Your task to perform on an android device: turn smart compose on in the gmail app Image 0: 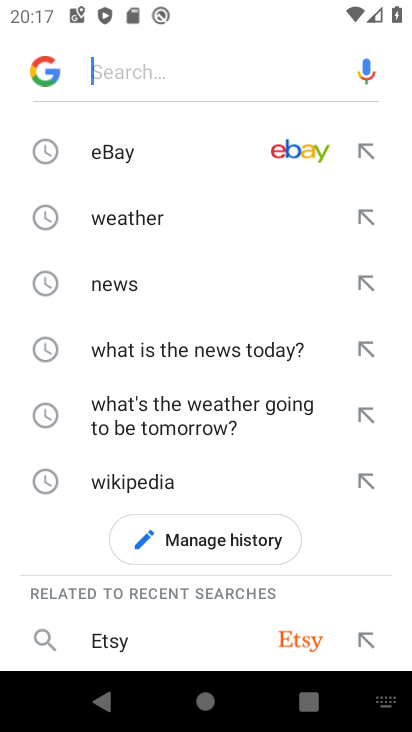
Step 0: press home button
Your task to perform on an android device: turn smart compose on in the gmail app Image 1: 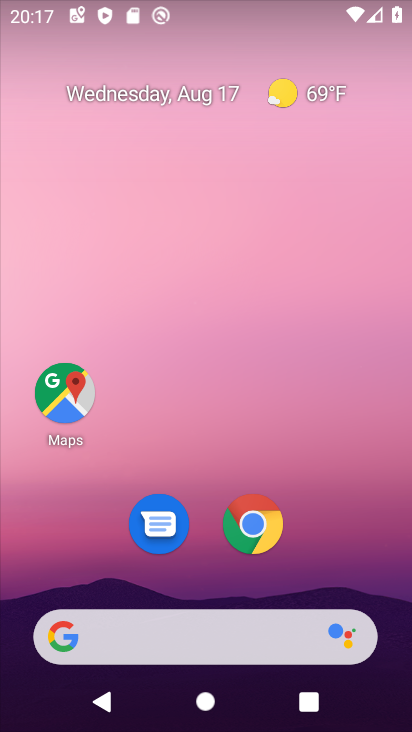
Step 1: drag from (323, 540) to (330, 54)
Your task to perform on an android device: turn smart compose on in the gmail app Image 2: 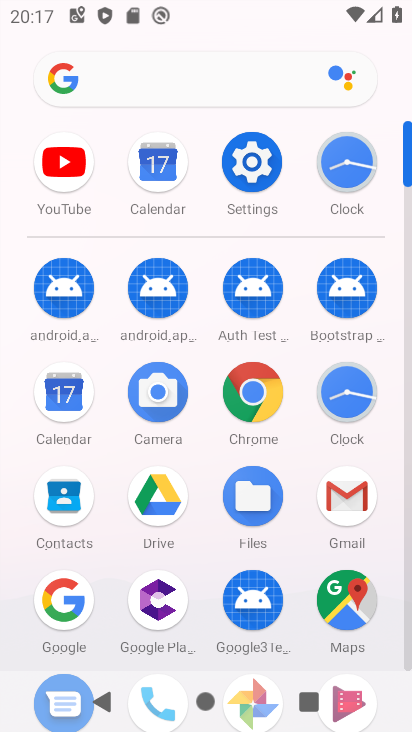
Step 2: click (344, 492)
Your task to perform on an android device: turn smart compose on in the gmail app Image 3: 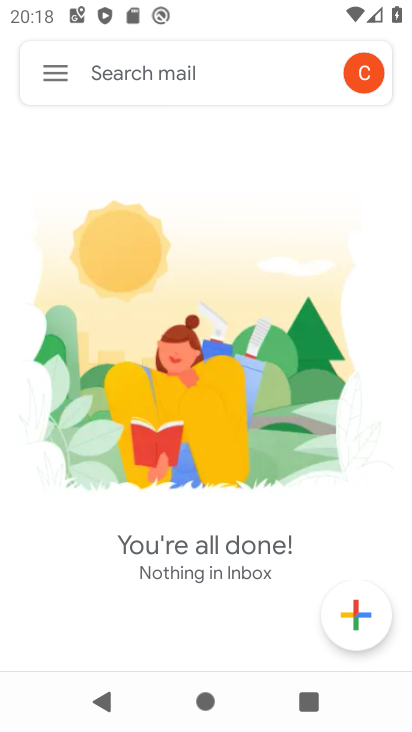
Step 3: click (62, 76)
Your task to perform on an android device: turn smart compose on in the gmail app Image 4: 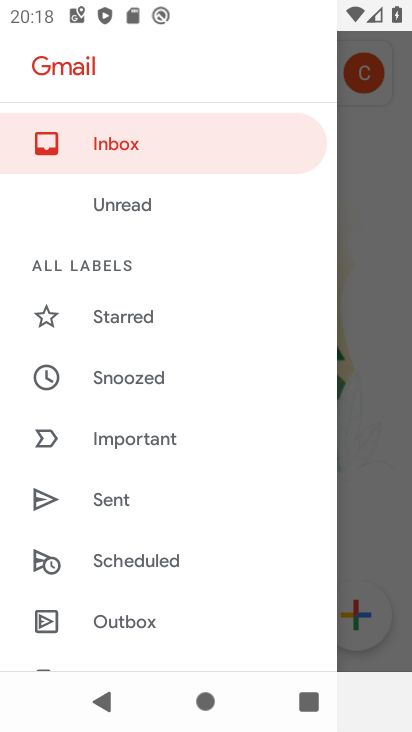
Step 4: drag from (123, 518) to (240, 0)
Your task to perform on an android device: turn smart compose on in the gmail app Image 5: 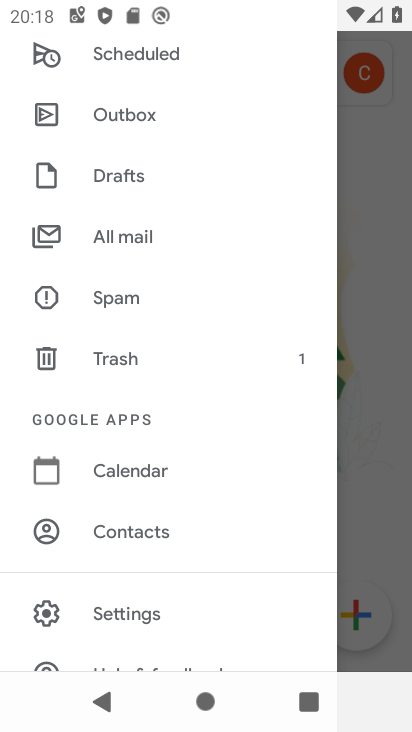
Step 5: click (143, 613)
Your task to perform on an android device: turn smart compose on in the gmail app Image 6: 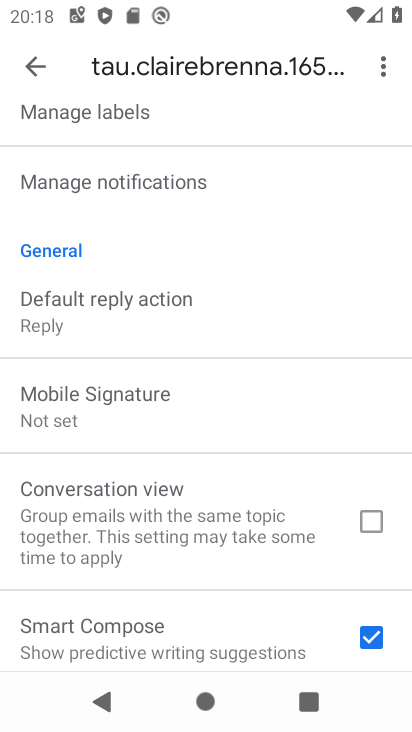
Step 6: task complete